Your task to perform on an android device: delete browsing data in the chrome app Image 0: 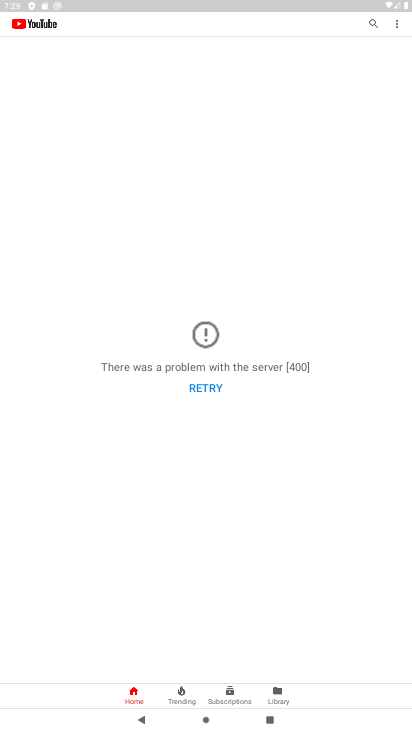
Step 0: press home button
Your task to perform on an android device: delete browsing data in the chrome app Image 1: 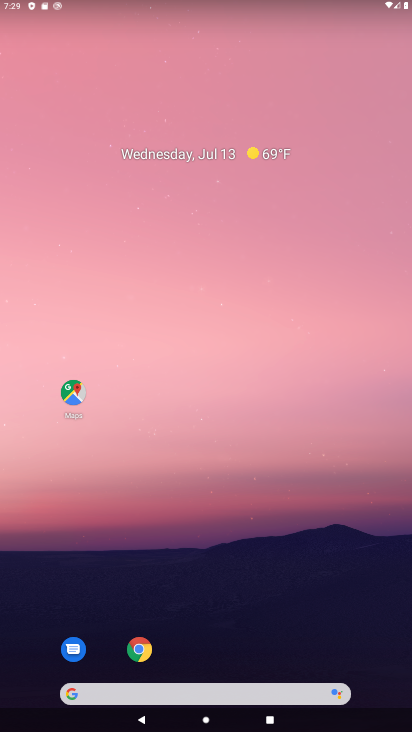
Step 1: drag from (122, 664) to (126, 319)
Your task to perform on an android device: delete browsing data in the chrome app Image 2: 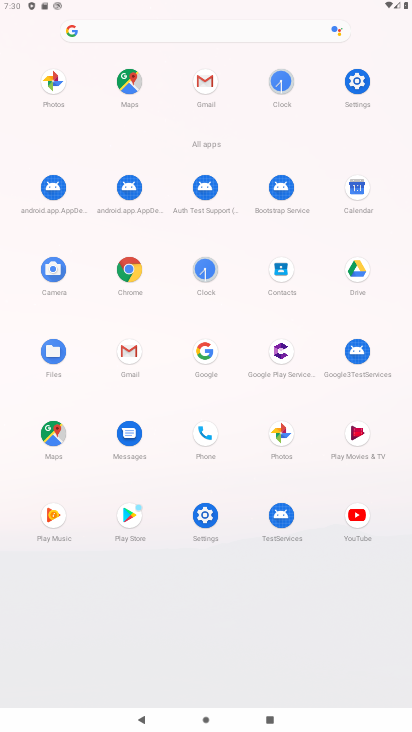
Step 2: click (130, 264)
Your task to perform on an android device: delete browsing data in the chrome app Image 3: 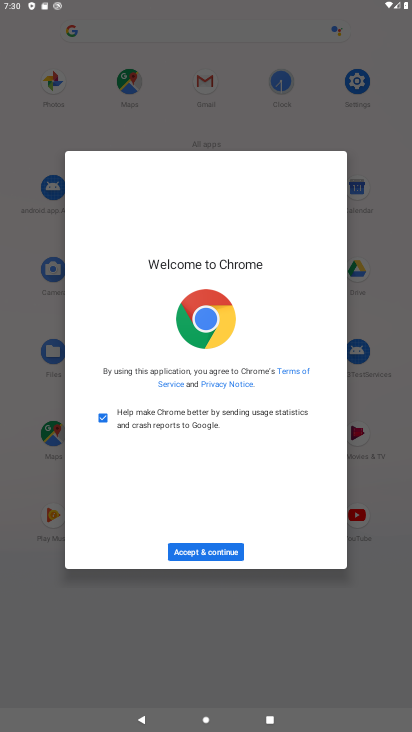
Step 3: click (208, 554)
Your task to perform on an android device: delete browsing data in the chrome app Image 4: 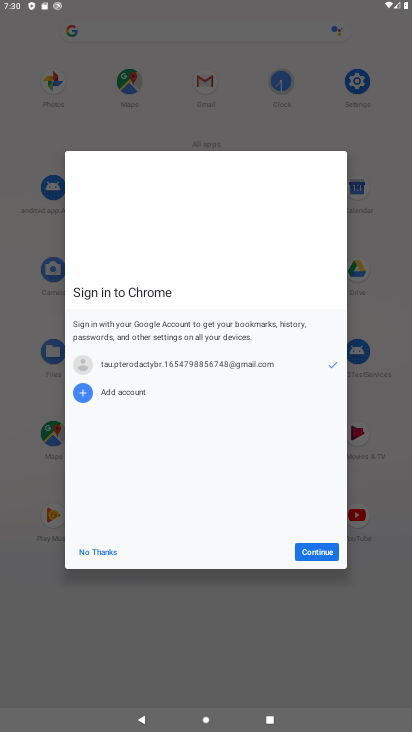
Step 4: click (305, 555)
Your task to perform on an android device: delete browsing data in the chrome app Image 5: 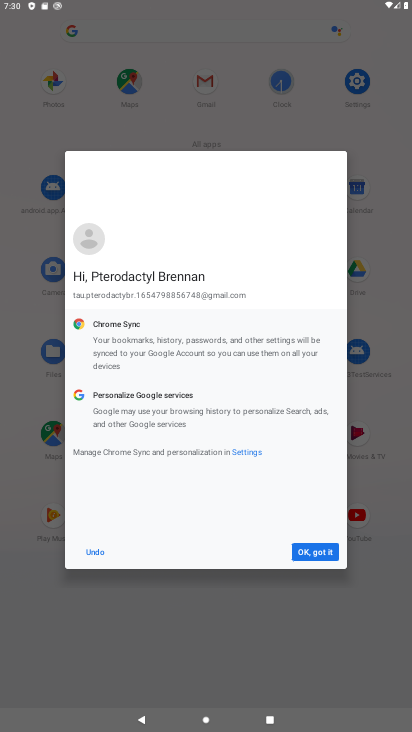
Step 5: click (305, 555)
Your task to perform on an android device: delete browsing data in the chrome app Image 6: 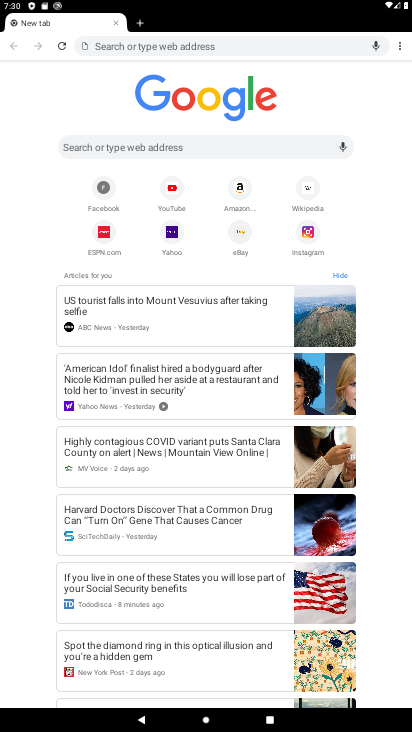
Step 6: click (400, 40)
Your task to perform on an android device: delete browsing data in the chrome app Image 7: 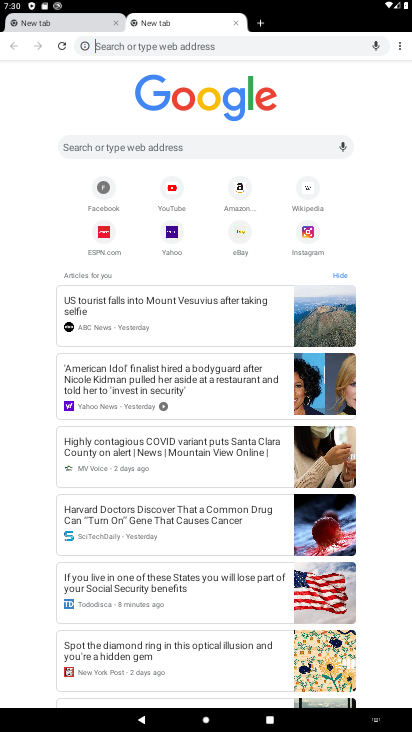
Step 7: click (396, 48)
Your task to perform on an android device: delete browsing data in the chrome app Image 8: 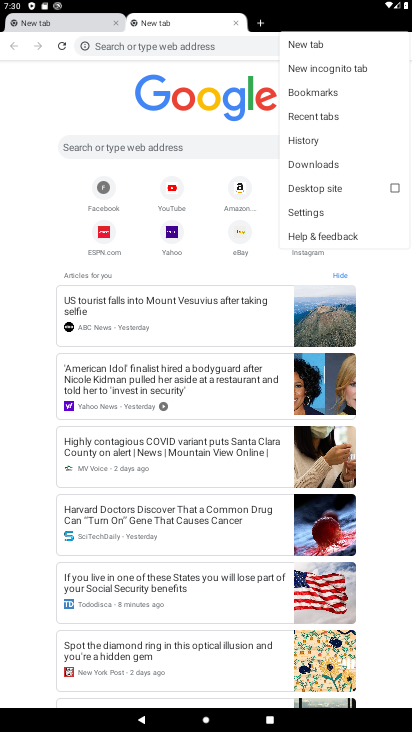
Step 8: click (309, 214)
Your task to perform on an android device: delete browsing data in the chrome app Image 9: 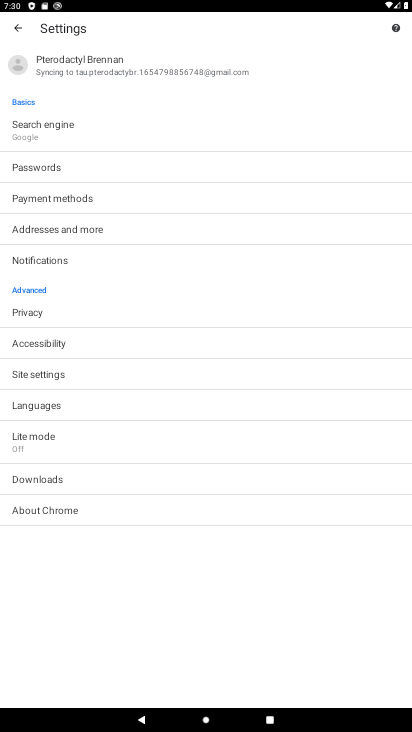
Step 9: click (29, 313)
Your task to perform on an android device: delete browsing data in the chrome app Image 10: 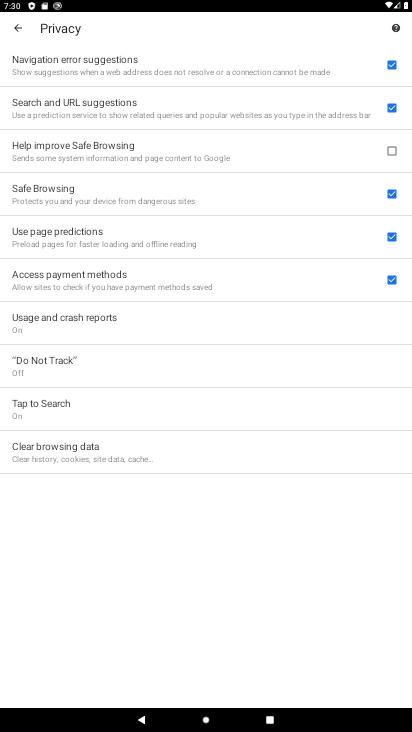
Step 10: click (47, 456)
Your task to perform on an android device: delete browsing data in the chrome app Image 11: 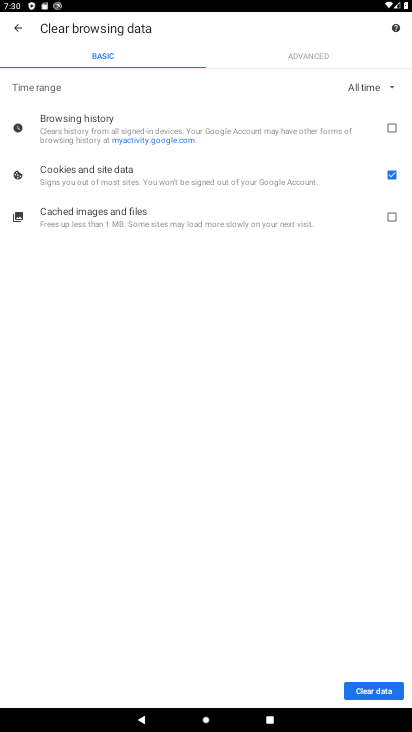
Step 11: click (393, 214)
Your task to perform on an android device: delete browsing data in the chrome app Image 12: 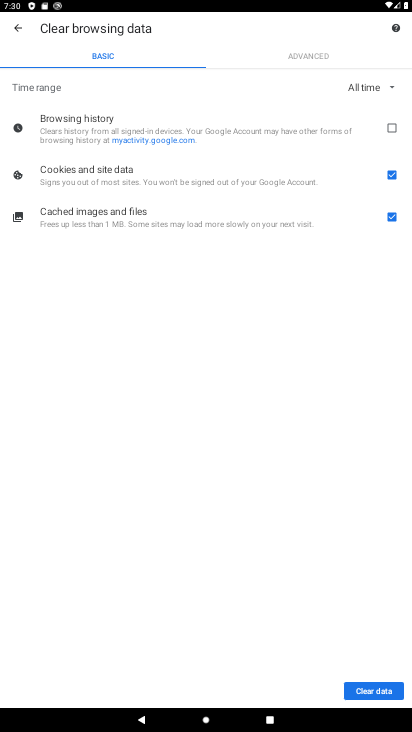
Step 12: click (390, 126)
Your task to perform on an android device: delete browsing data in the chrome app Image 13: 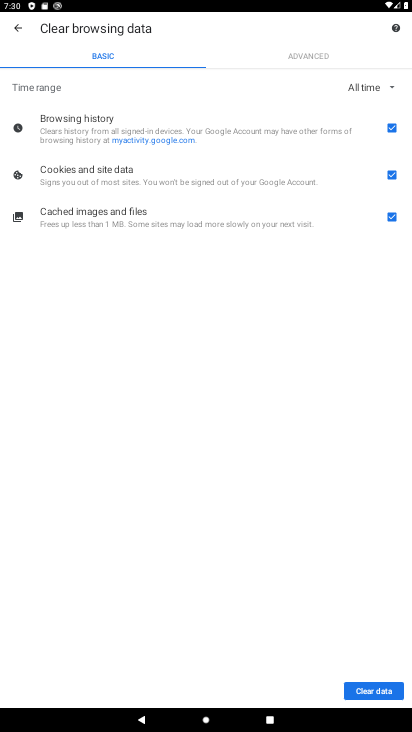
Step 13: click (365, 691)
Your task to perform on an android device: delete browsing data in the chrome app Image 14: 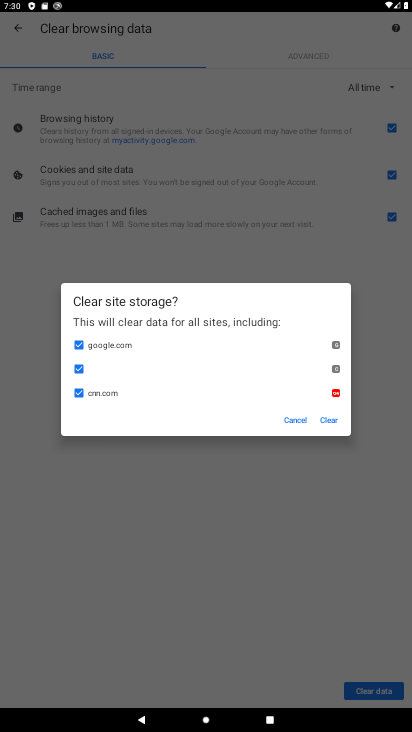
Step 14: click (328, 418)
Your task to perform on an android device: delete browsing data in the chrome app Image 15: 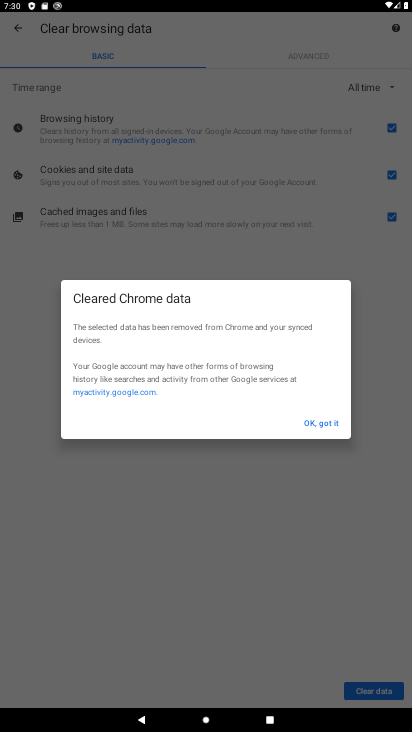
Step 15: click (328, 423)
Your task to perform on an android device: delete browsing data in the chrome app Image 16: 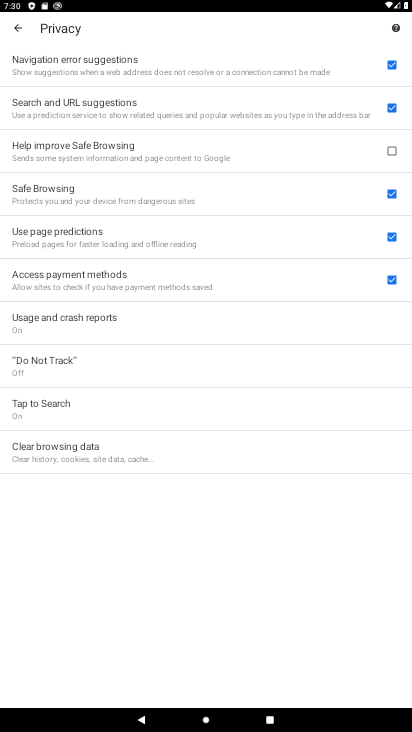
Step 16: task complete